Your task to perform on an android device: Turn off the flashlight Image 0: 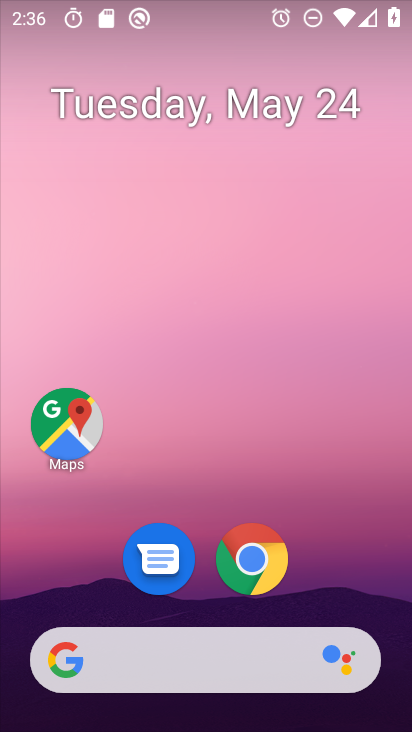
Step 0: drag from (403, 704) to (350, 220)
Your task to perform on an android device: Turn off the flashlight Image 1: 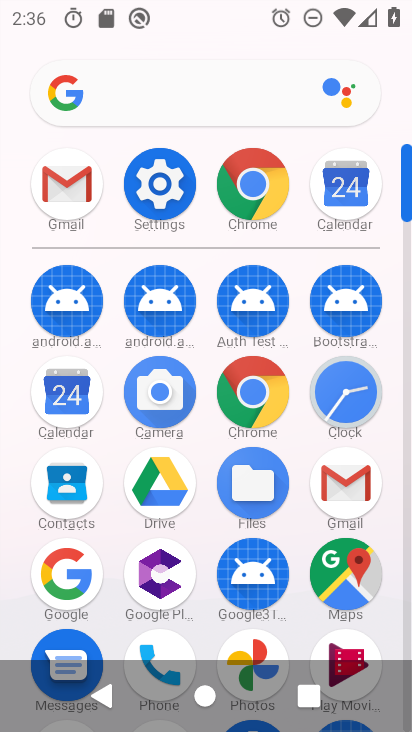
Step 1: click (146, 168)
Your task to perform on an android device: Turn off the flashlight Image 2: 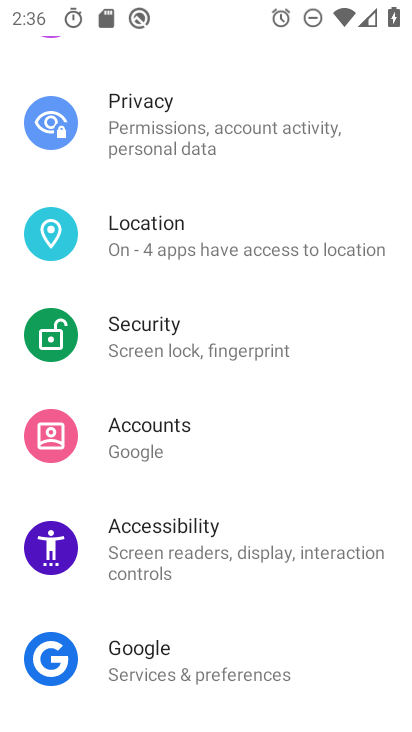
Step 2: drag from (251, 149) to (275, 609)
Your task to perform on an android device: Turn off the flashlight Image 3: 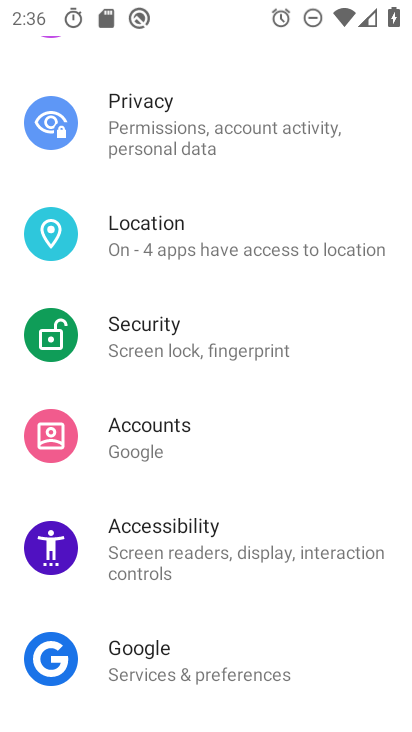
Step 3: drag from (359, 101) to (334, 622)
Your task to perform on an android device: Turn off the flashlight Image 4: 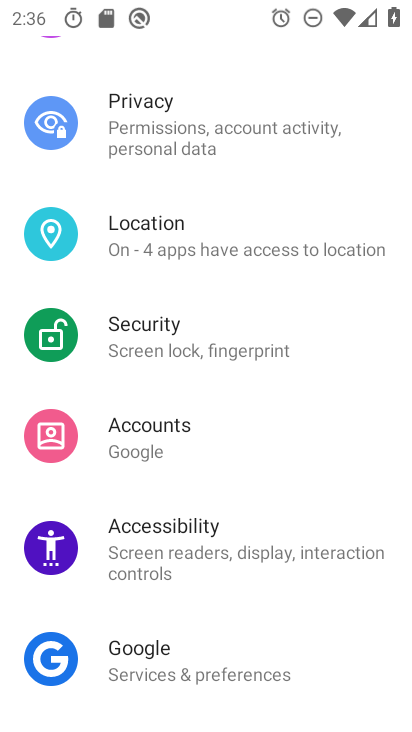
Step 4: drag from (353, 139) to (386, 730)
Your task to perform on an android device: Turn off the flashlight Image 5: 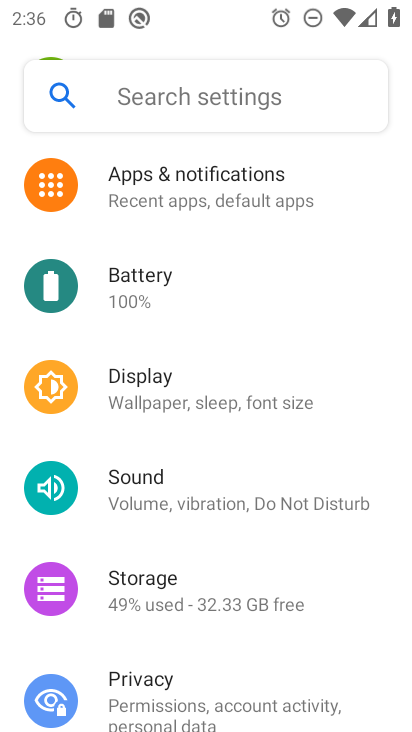
Step 5: click (97, 385)
Your task to perform on an android device: Turn off the flashlight Image 6: 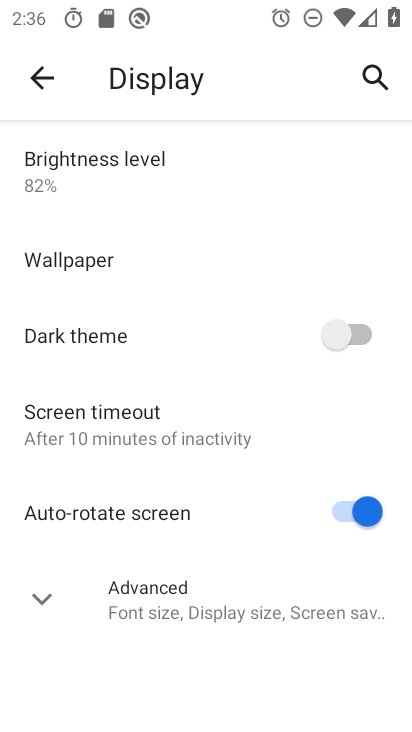
Step 6: task complete